Your task to perform on an android device: check android version Image 0: 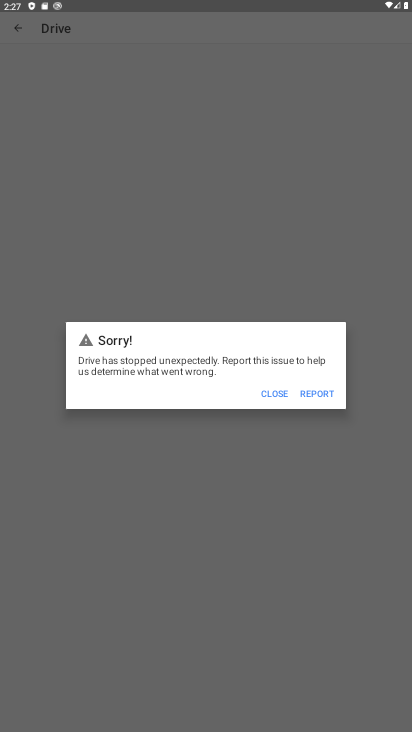
Step 0: press home button
Your task to perform on an android device: check android version Image 1: 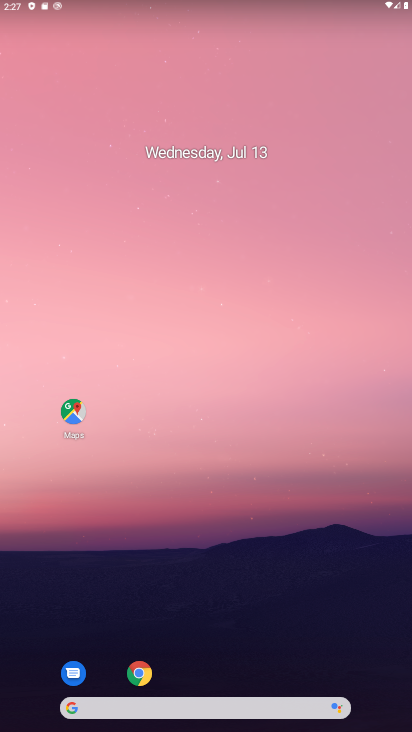
Step 1: drag from (219, 708) to (248, 228)
Your task to perform on an android device: check android version Image 2: 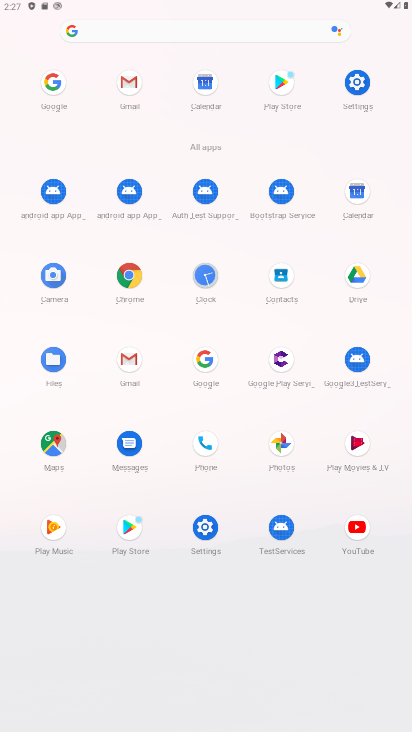
Step 2: click (203, 525)
Your task to perform on an android device: check android version Image 3: 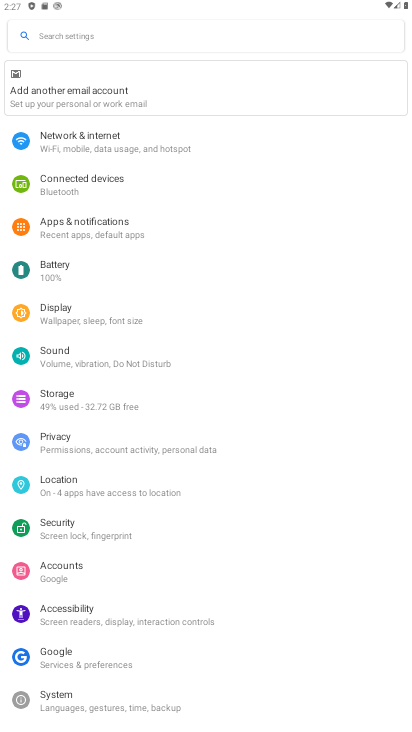
Step 3: drag from (123, 642) to (212, 534)
Your task to perform on an android device: check android version Image 4: 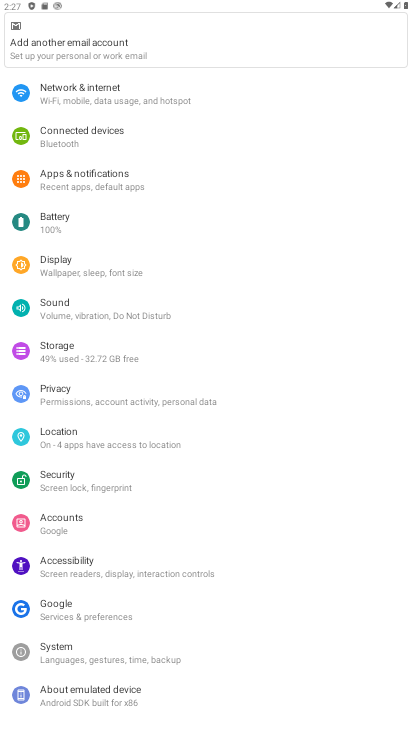
Step 4: click (83, 687)
Your task to perform on an android device: check android version Image 5: 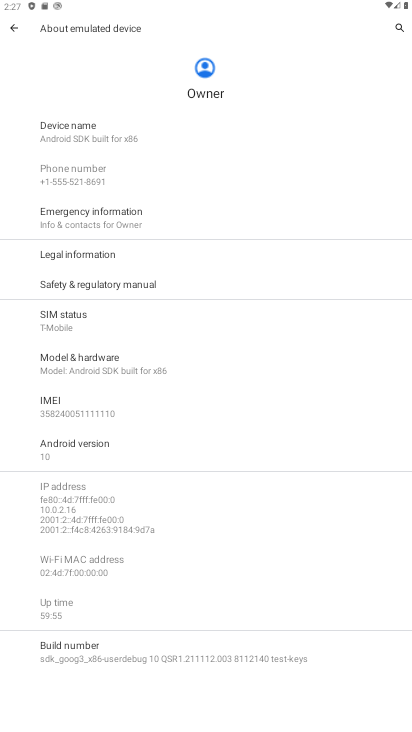
Step 5: click (71, 448)
Your task to perform on an android device: check android version Image 6: 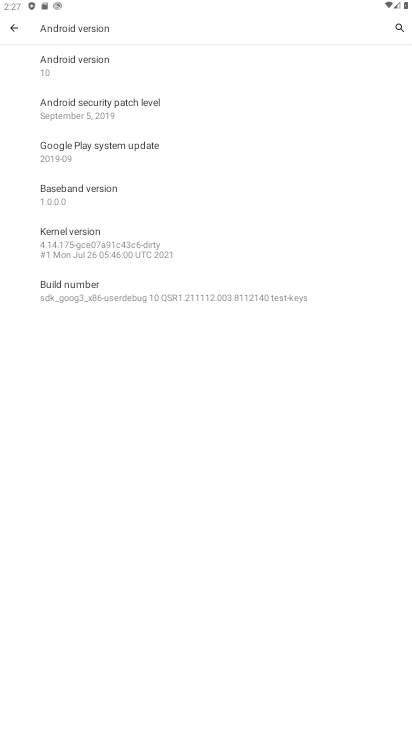
Step 6: task complete